Your task to perform on an android device: allow notifications from all sites in the chrome app Image 0: 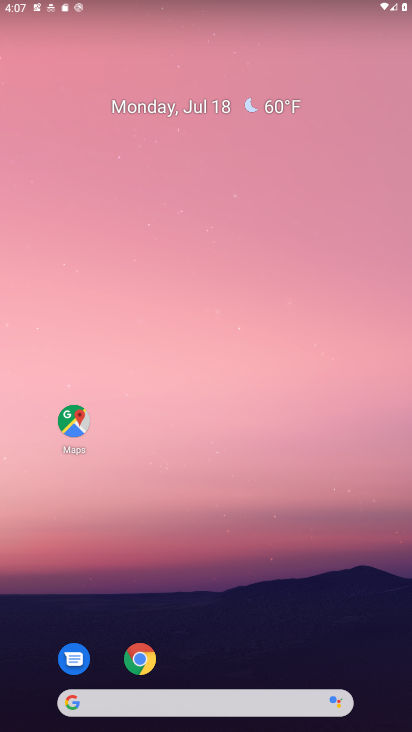
Step 0: drag from (166, 656) to (216, 21)
Your task to perform on an android device: allow notifications from all sites in the chrome app Image 1: 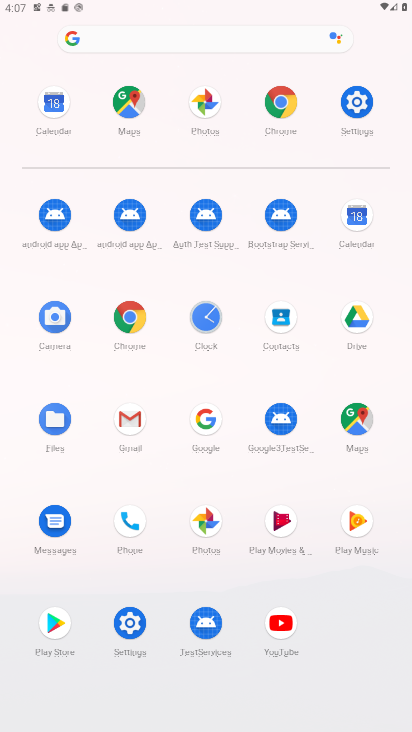
Step 1: click (125, 326)
Your task to perform on an android device: allow notifications from all sites in the chrome app Image 2: 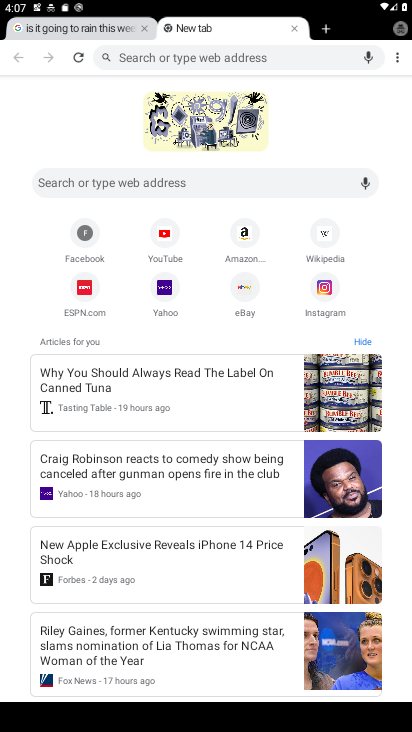
Step 2: click (397, 55)
Your task to perform on an android device: allow notifications from all sites in the chrome app Image 3: 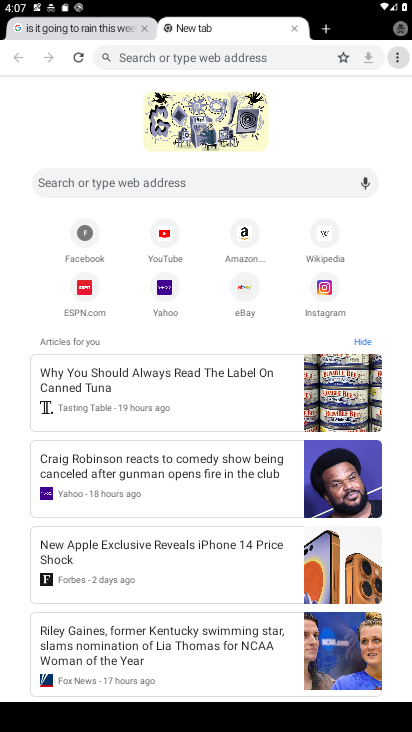
Step 3: drag from (397, 55) to (396, 92)
Your task to perform on an android device: allow notifications from all sites in the chrome app Image 4: 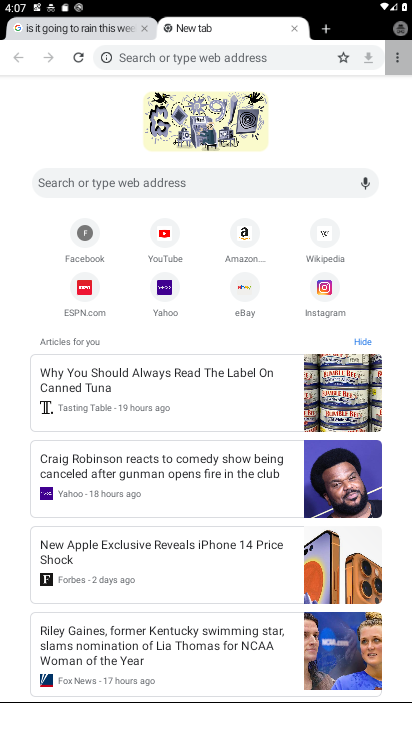
Step 4: drag from (393, 114) to (352, 235)
Your task to perform on an android device: allow notifications from all sites in the chrome app Image 5: 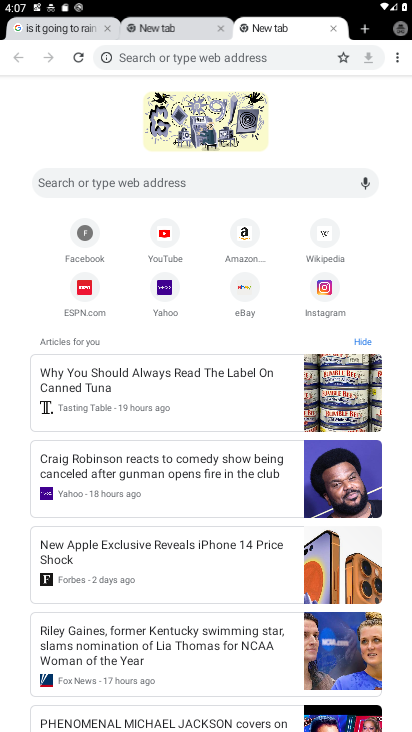
Step 5: click (389, 56)
Your task to perform on an android device: allow notifications from all sites in the chrome app Image 6: 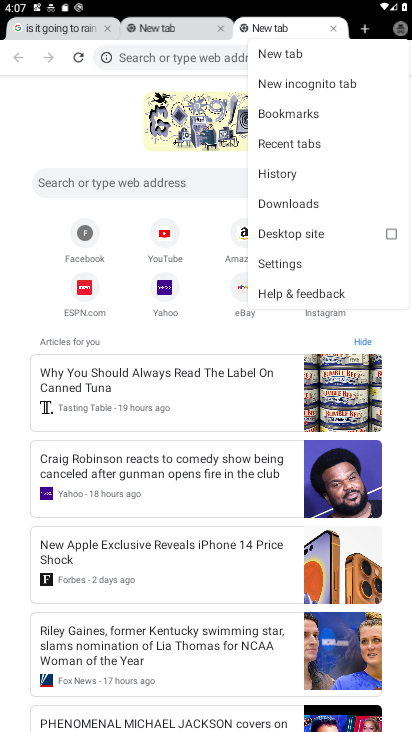
Step 6: click (294, 259)
Your task to perform on an android device: allow notifications from all sites in the chrome app Image 7: 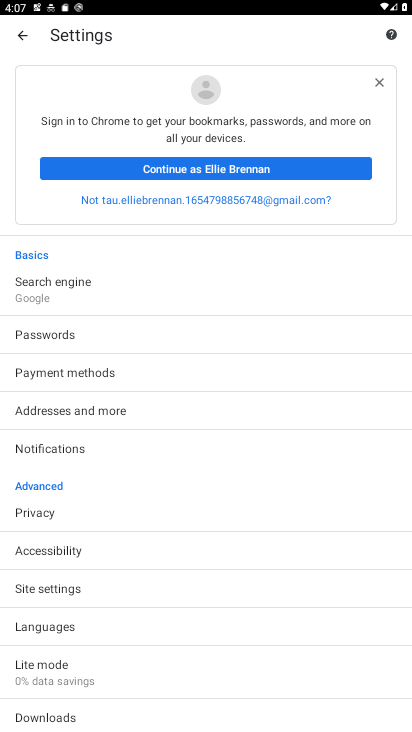
Step 7: click (83, 591)
Your task to perform on an android device: allow notifications from all sites in the chrome app Image 8: 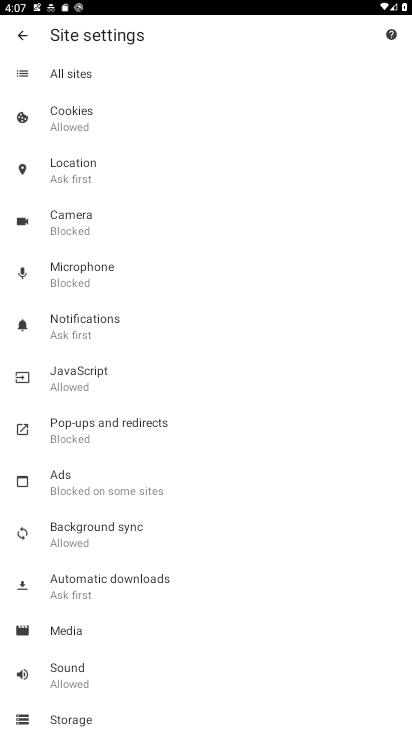
Step 8: press back button
Your task to perform on an android device: allow notifications from all sites in the chrome app Image 9: 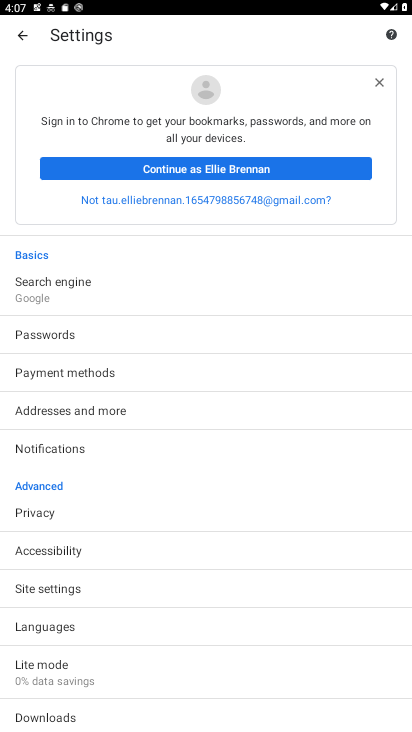
Step 9: click (79, 444)
Your task to perform on an android device: allow notifications from all sites in the chrome app Image 10: 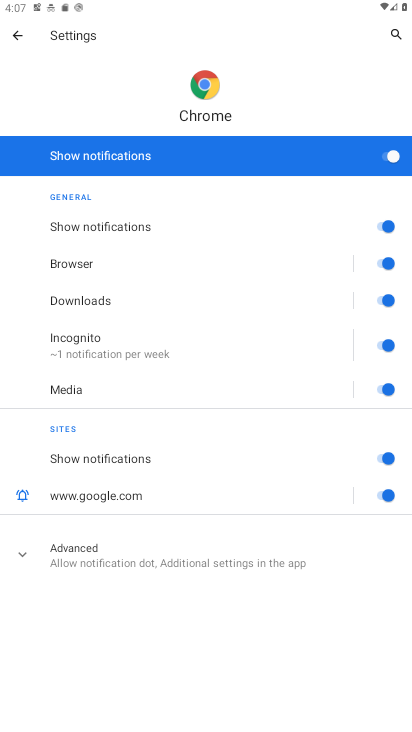
Step 10: task complete